Your task to perform on an android device: Search for vegetarian restaurants on Maps Image 0: 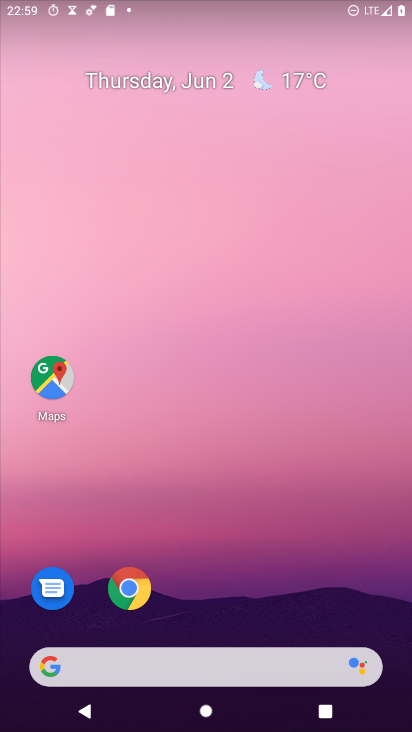
Step 0: click (56, 389)
Your task to perform on an android device: Search for vegetarian restaurants on Maps Image 1: 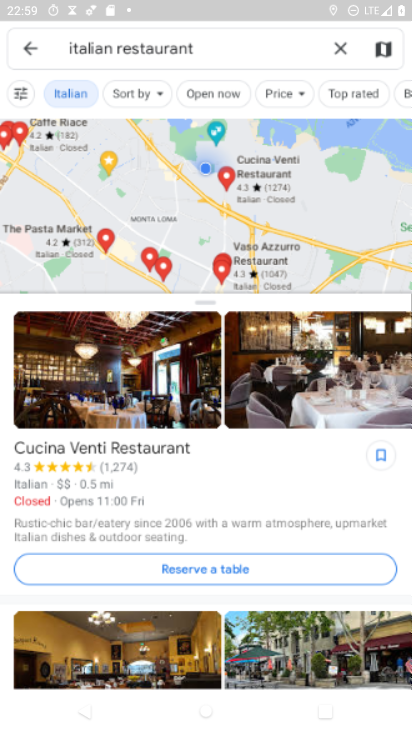
Step 1: click (339, 48)
Your task to perform on an android device: Search for vegetarian restaurants on Maps Image 2: 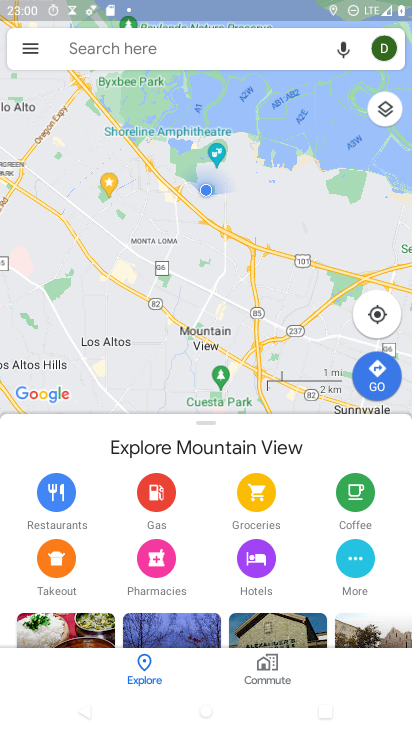
Step 2: click (153, 55)
Your task to perform on an android device: Search for vegetarian restaurants on Maps Image 3: 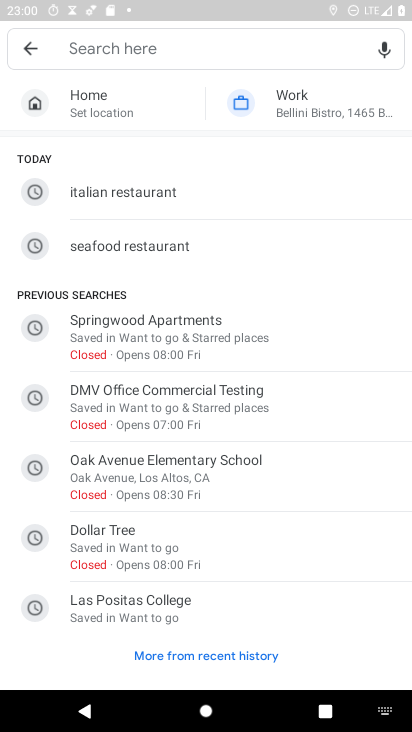
Step 3: click (103, 50)
Your task to perform on an android device: Search for vegetarian restaurants on Maps Image 4: 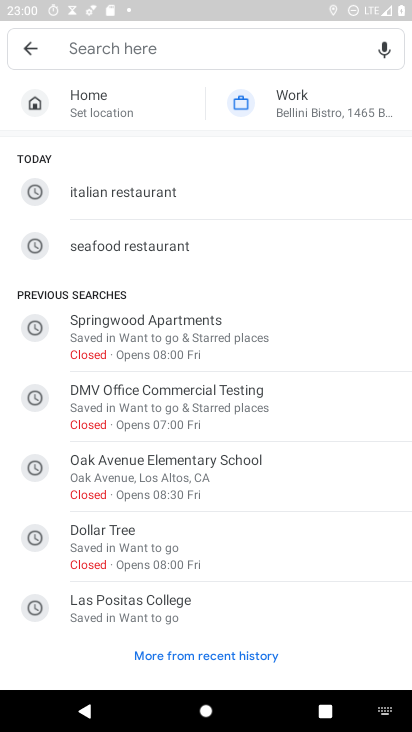
Step 4: type "vegetarian res"
Your task to perform on an android device: Search for vegetarian restaurants on Maps Image 5: 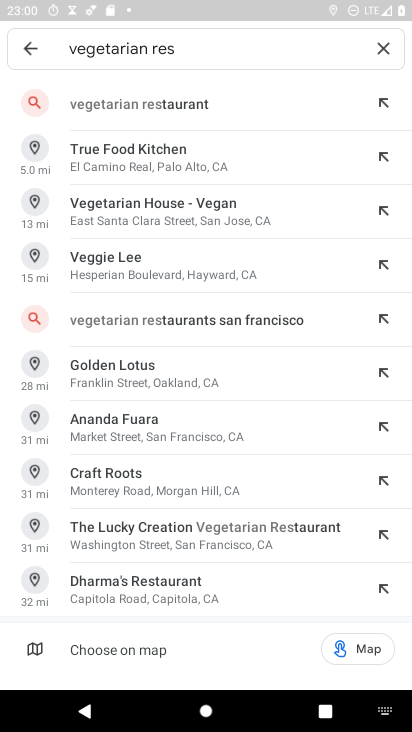
Step 5: click (163, 110)
Your task to perform on an android device: Search for vegetarian restaurants on Maps Image 6: 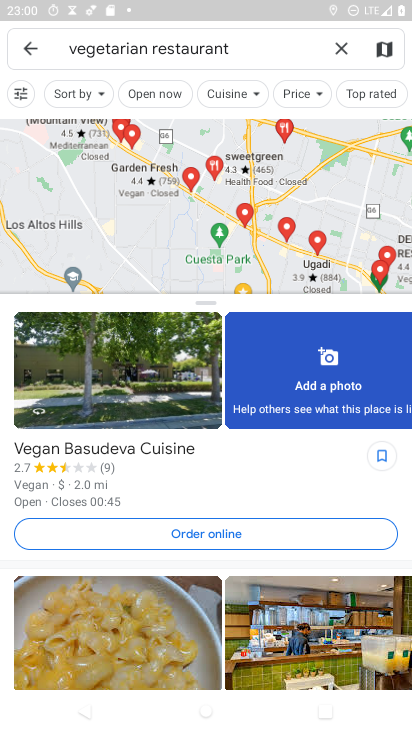
Step 6: task complete